Your task to perform on an android device: change notifications settings Image 0: 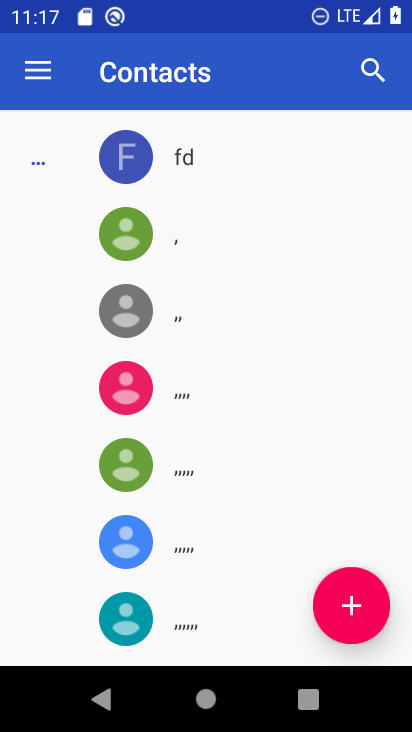
Step 0: press home button
Your task to perform on an android device: change notifications settings Image 1: 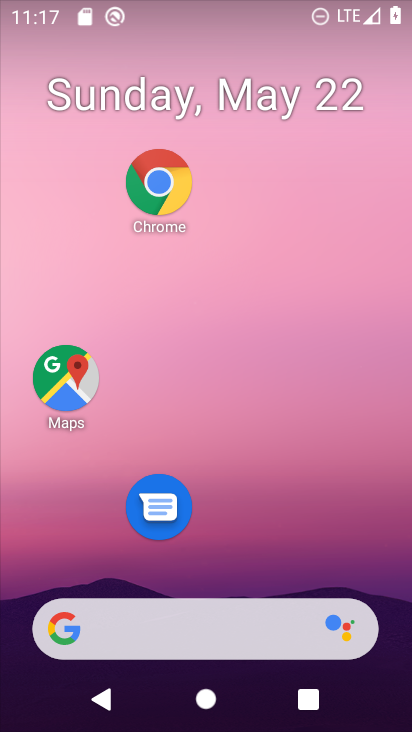
Step 1: drag from (265, 625) to (274, 26)
Your task to perform on an android device: change notifications settings Image 2: 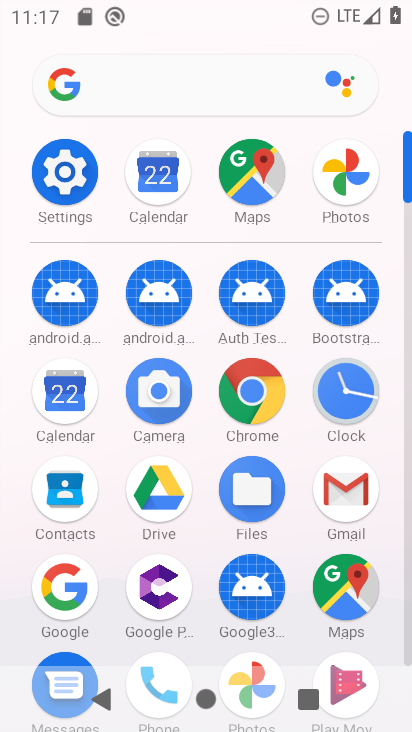
Step 2: click (71, 160)
Your task to perform on an android device: change notifications settings Image 3: 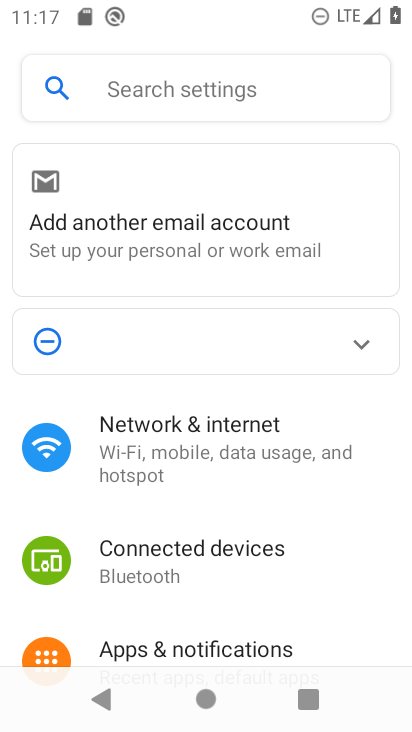
Step 3: click (256, 650)
Your task to perform on an android device: change notifications settings Image 4: 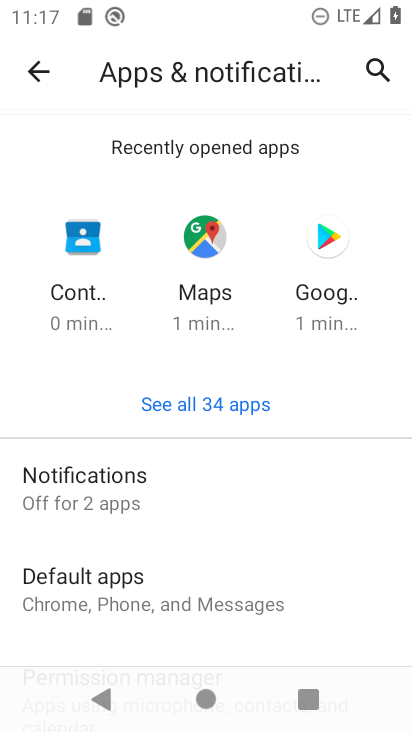
Step 4: click (217, 486)
Your task to perform on an android device: change notifications settings Image 5: 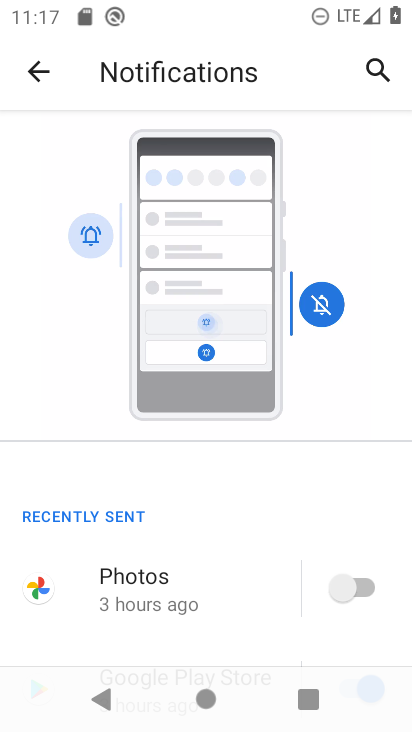
Step 5: click (363, 580)
Your task to perform on an android device: change notifications settings Image 6: 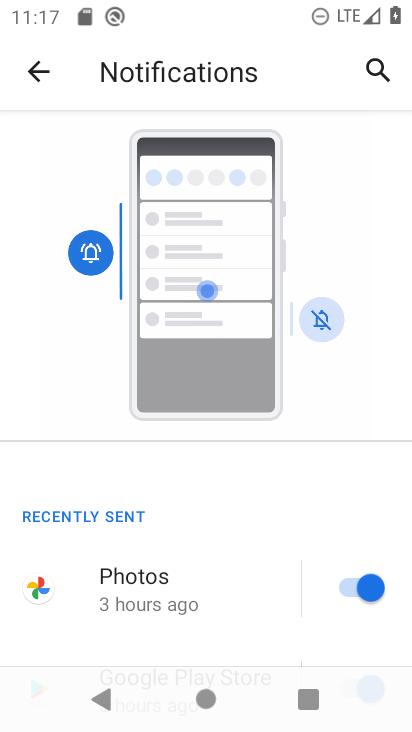
Step 6: task complete